Your task to perform on an android device: Open the calendar and show me this week's events Image 0: 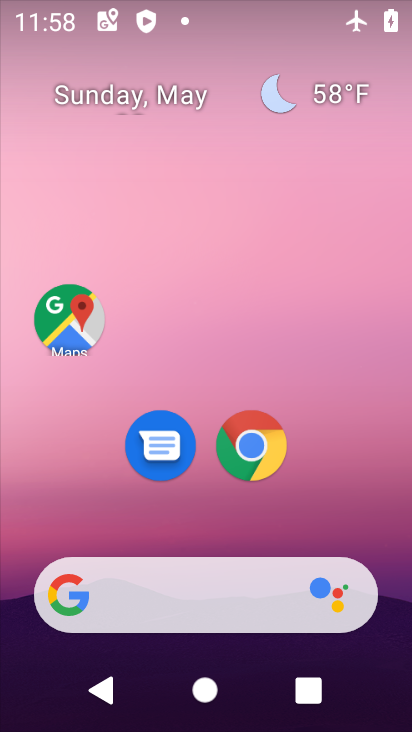
Step 0: press home button
Your task to perform on an android device: Open the calendar and show me this week's events Image 1: 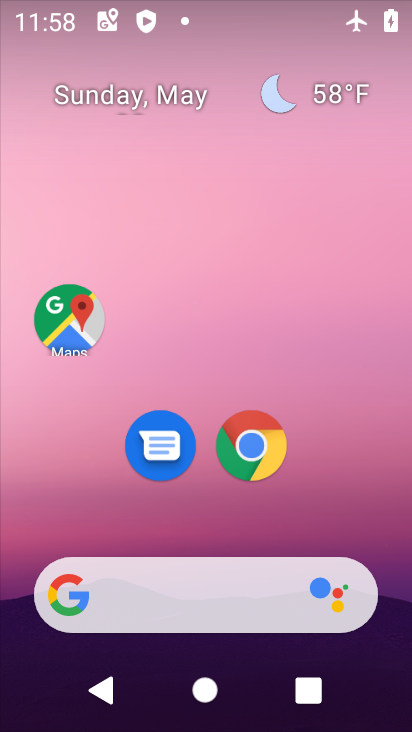
Step 1: drag from (213, 522) to (224, 89)
Your task to perform on an android device: Open the calendar and show me this week's events Image 2: 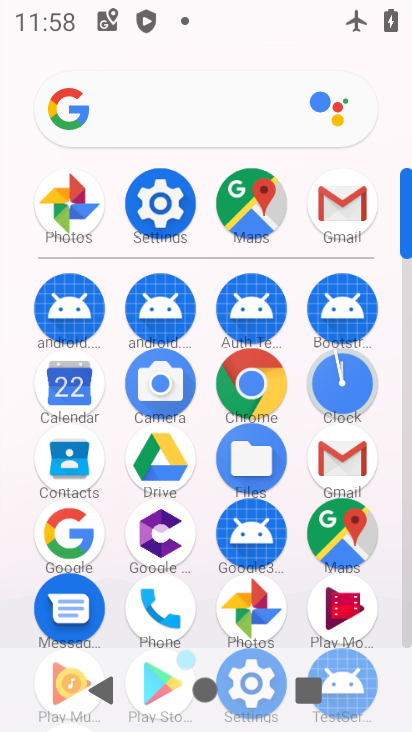
Step 2: click (65, 388)
Your task to perform on an android device: Open the calendar and show me this week's events Image 3: 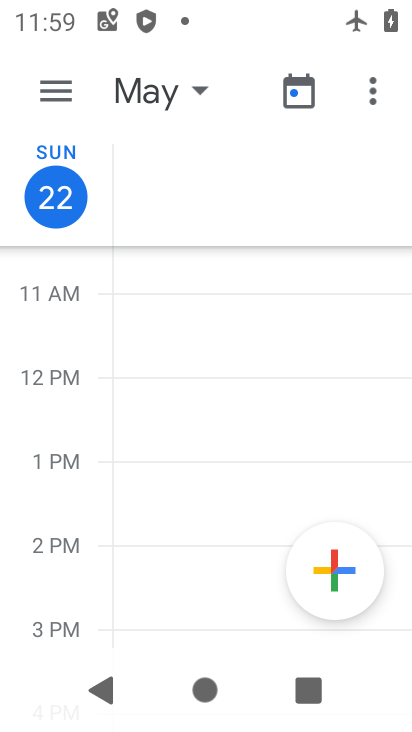
Step 3: click (61, 93)
Your task to perform on an android device: Open the calendar and show me this week's events Image 4: 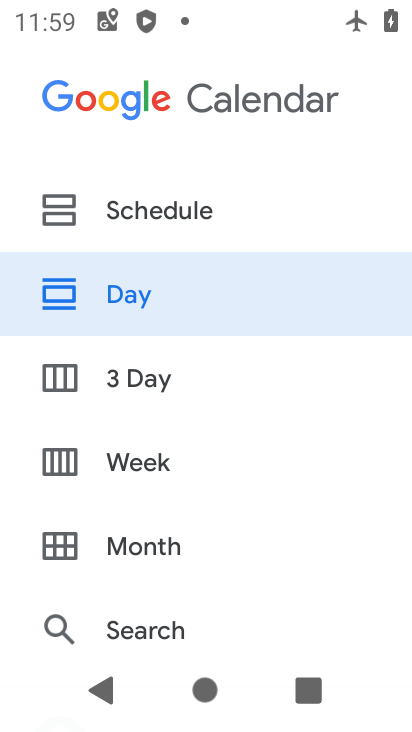
Step 4: click (118, 466)
Your task to perform on an android device: Open the calendar and show me this week's events Image 5: 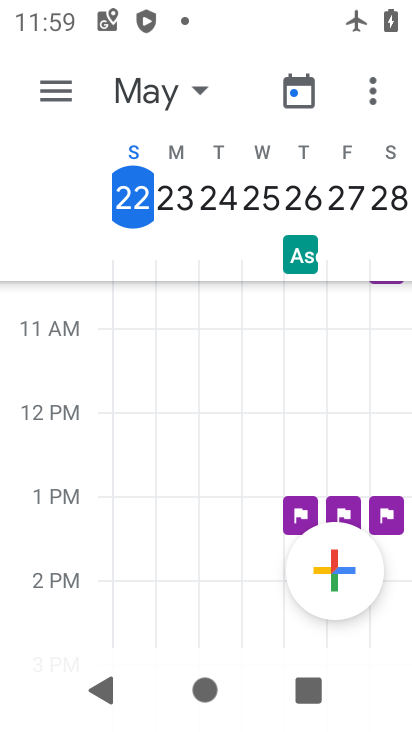
Step 5: click (131, 202)
Your task to perform on an android device: Open the calendar and show me this week's events Image 6: 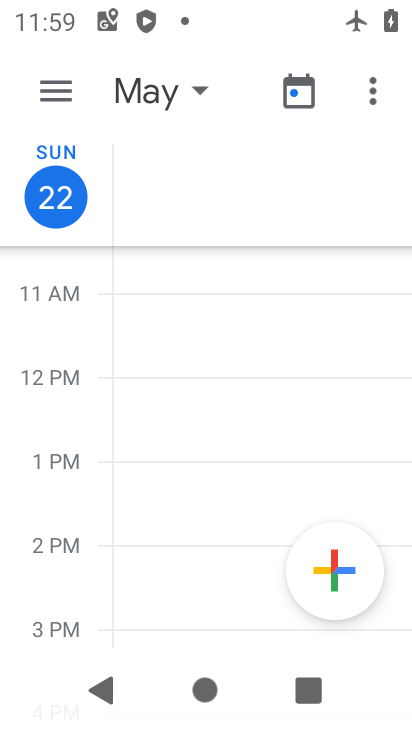
Step 6: click (95, 213)
Your task to perform on an android device: Open the calendar and show me this week's events Image 7: 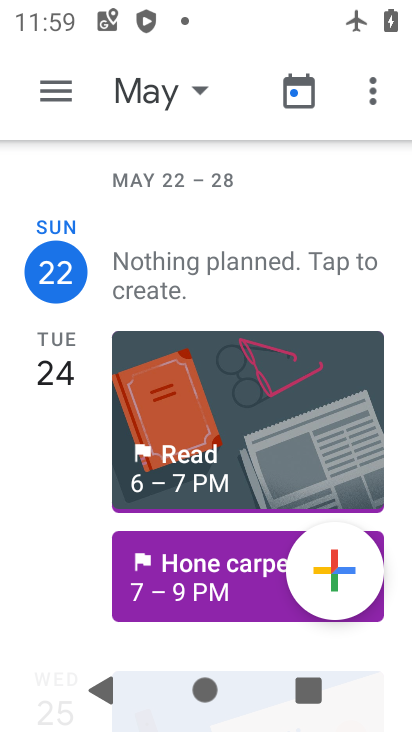
Step 7: task complete